Your task to perform on an android device: see creations saved in the google photos Image 0: 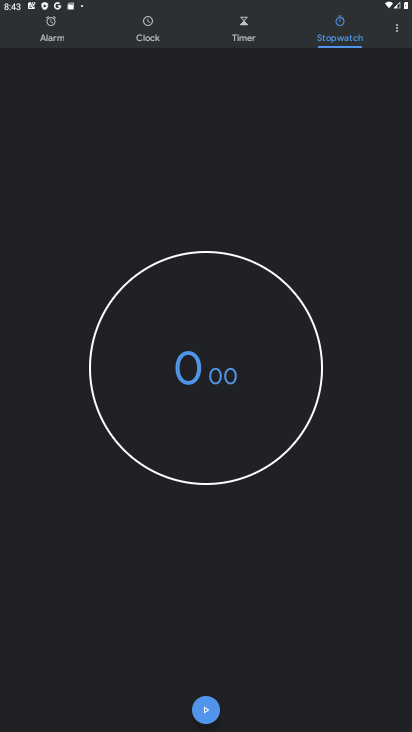
Step 0: press home button
Your task to perform on an android device: see creations saved in the google photos Image 1: 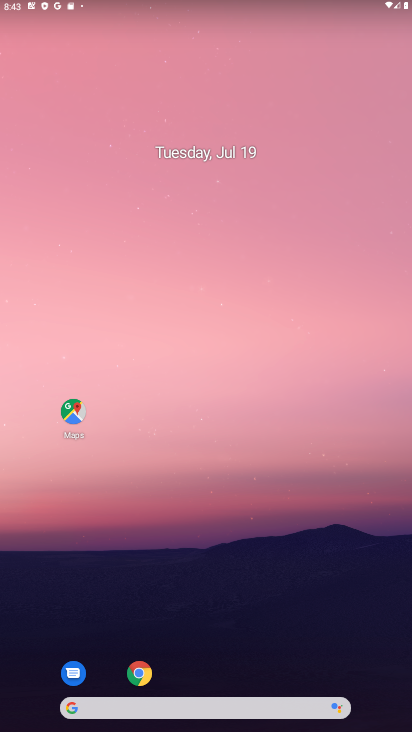
Step 1: drag from (191, 670) to (181, 145)
Your task to perform on an android device: see creations saved in the google photos Image 2: 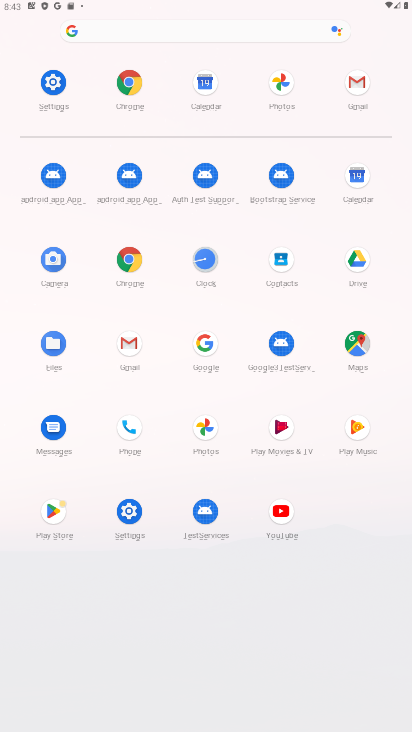
Step 2: click (291, 94)
Your task to perform on an android device: see creations saved in the google photos Image 3: 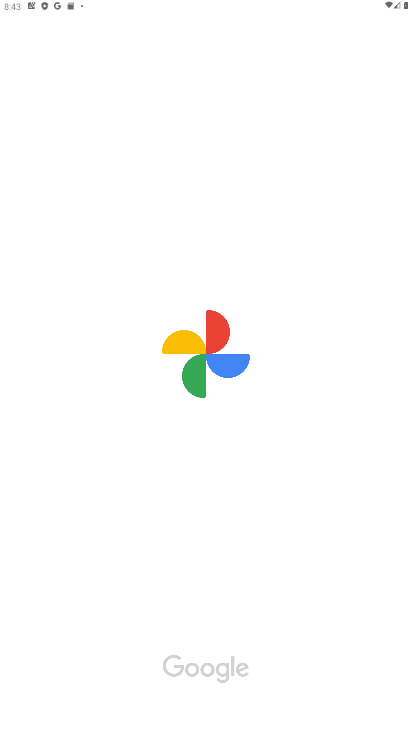
Step 3: task complete